Your task to perform on an android device: Search for apple airpods on amazon, select the first entry, add it to the cart, then select checkout. Image 0: 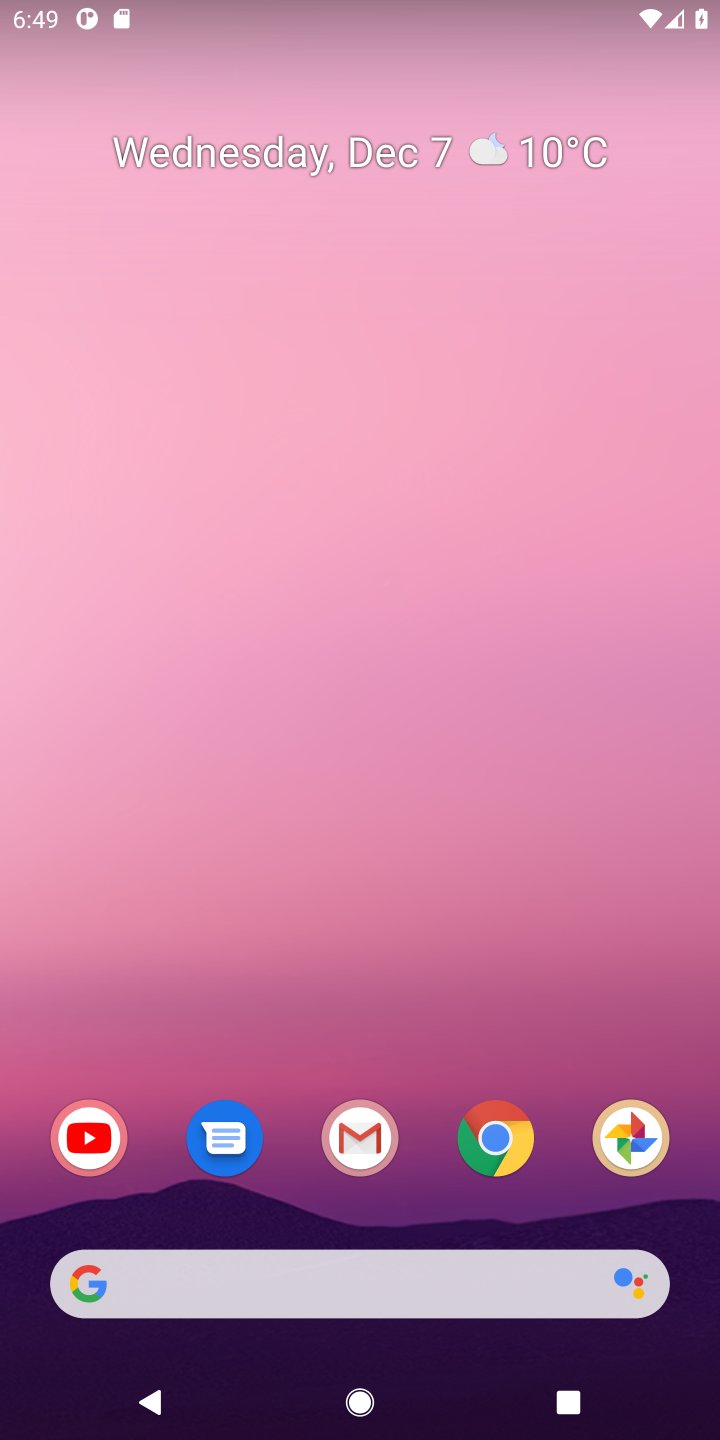
Step 0: press home button
Your task to perform on an android device: Search for apple airpods on amazon, select the first entry, add it to the cart, then select checkout. Image 1: 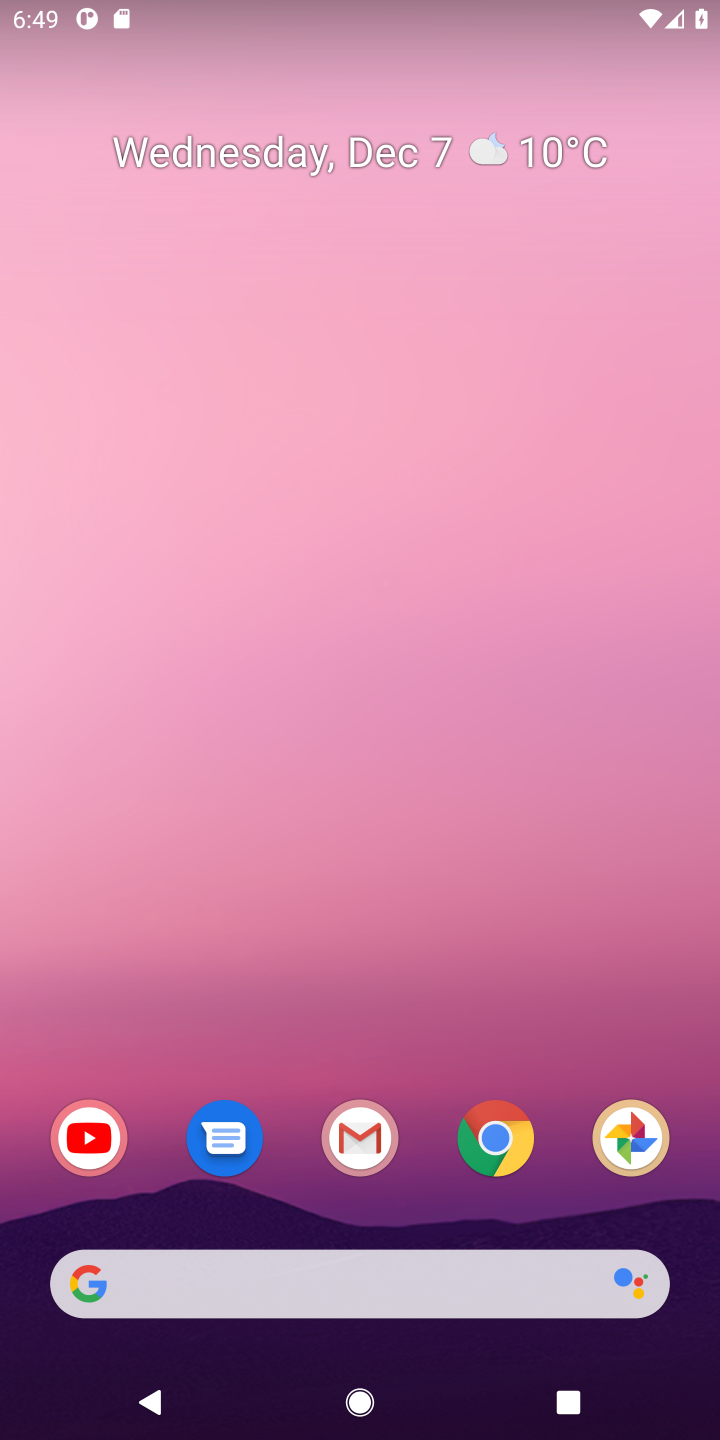
Step 1: click (161, 1285)
Your task to perform on an android device: Search for apple airpods on amazon, select the first entry, add it to the cart, then select checkout. Image 2: 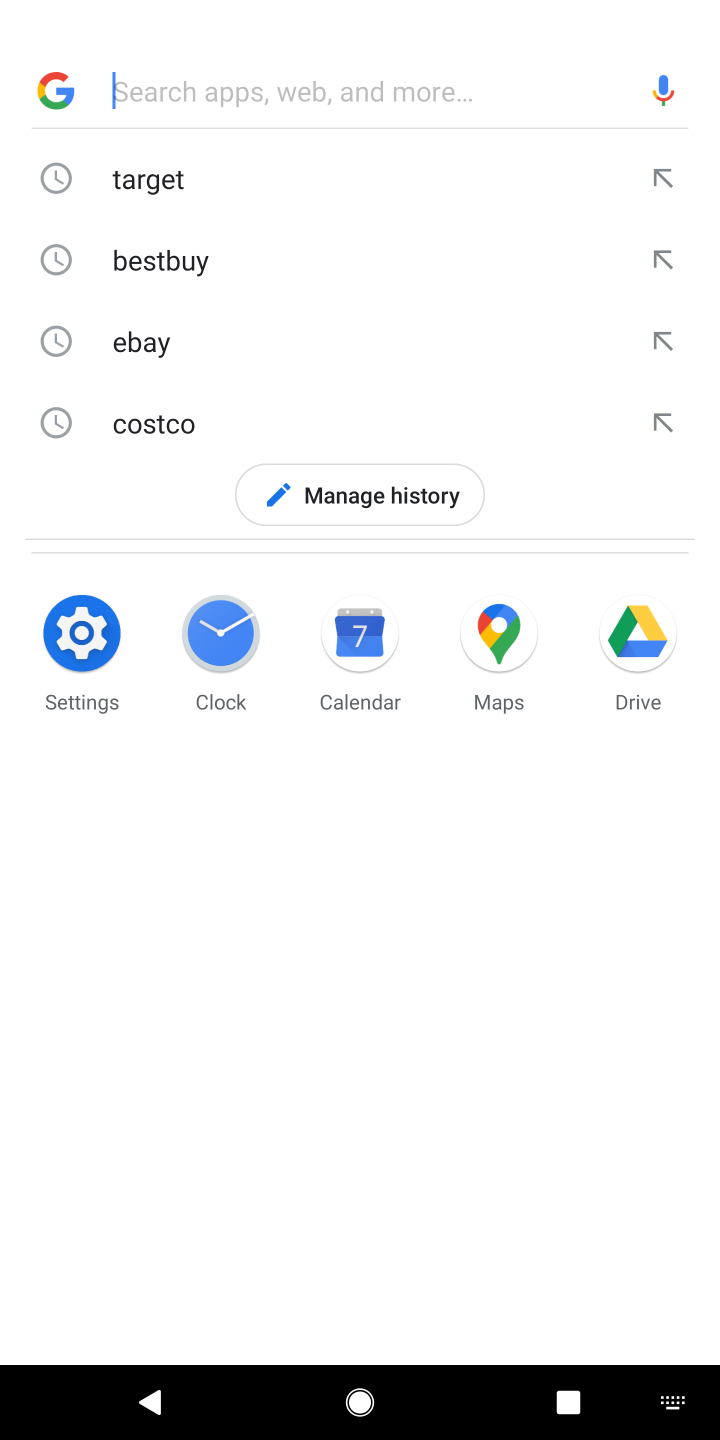
Step 2: type "amazon"
Your task to perform on an android device: Search for apple airpods on amazon, select the first entry, add it to the cart, then select checkout. Image 3: 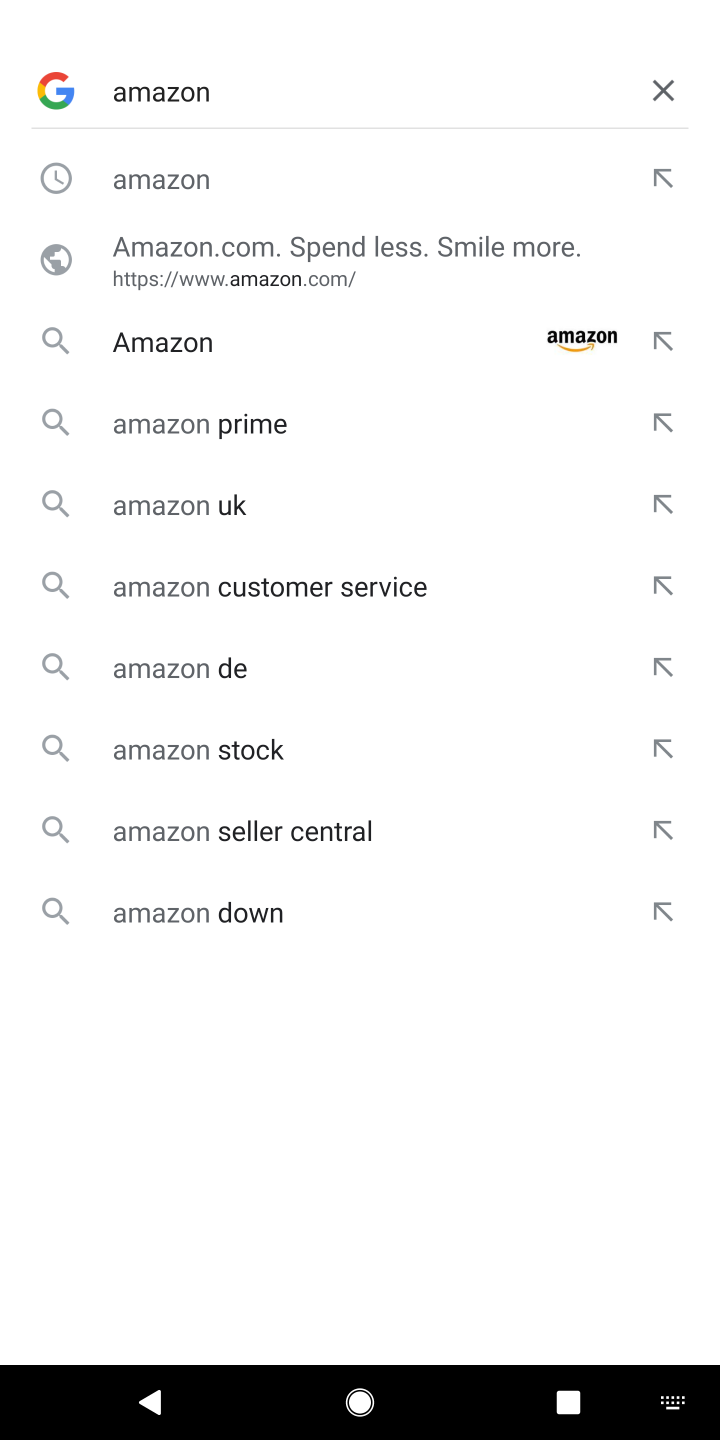
Step 3: press enter
Your task to perform on an android device: Search for apple airpods on amazon, select the first entry, add it to the cart, then select checkout. Image 4: 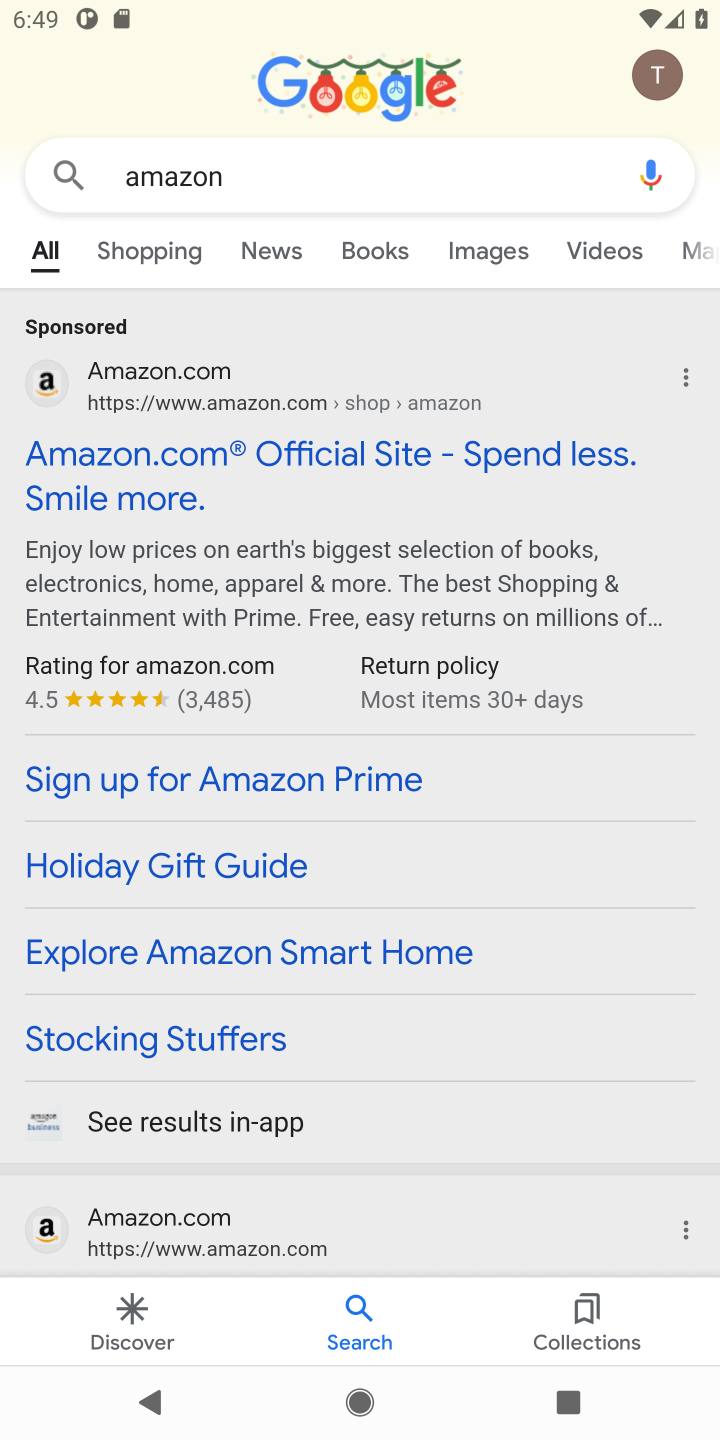
Step 4: click (343, 449)
Your task to perform on an android device: Search for apple airpods on amazon, select the first entry, add it to the cart, then select checkout. Image 5: 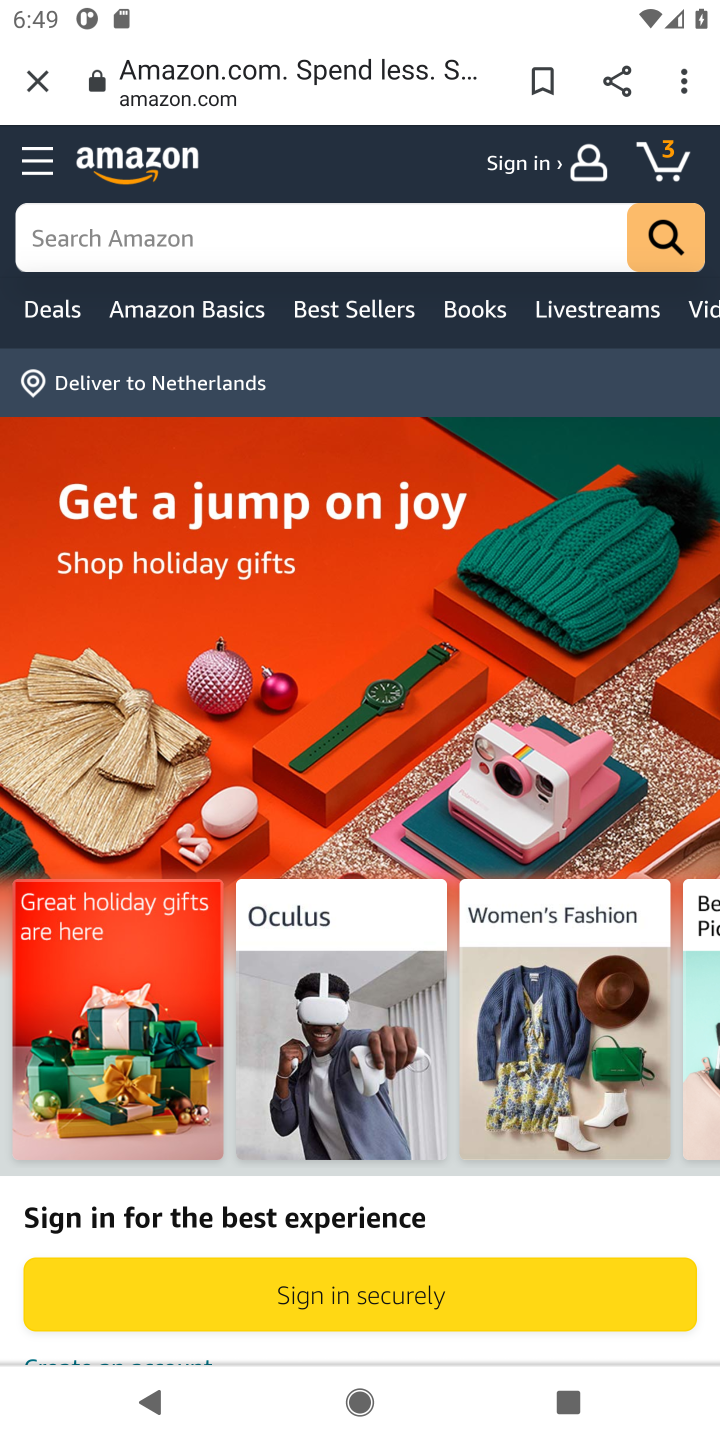
Step 5: click (95, 231)
Your task to perform on an android device: Search for apple airpods on amazon, select the first entry, add it to the cart, then select checkout. Image 6: 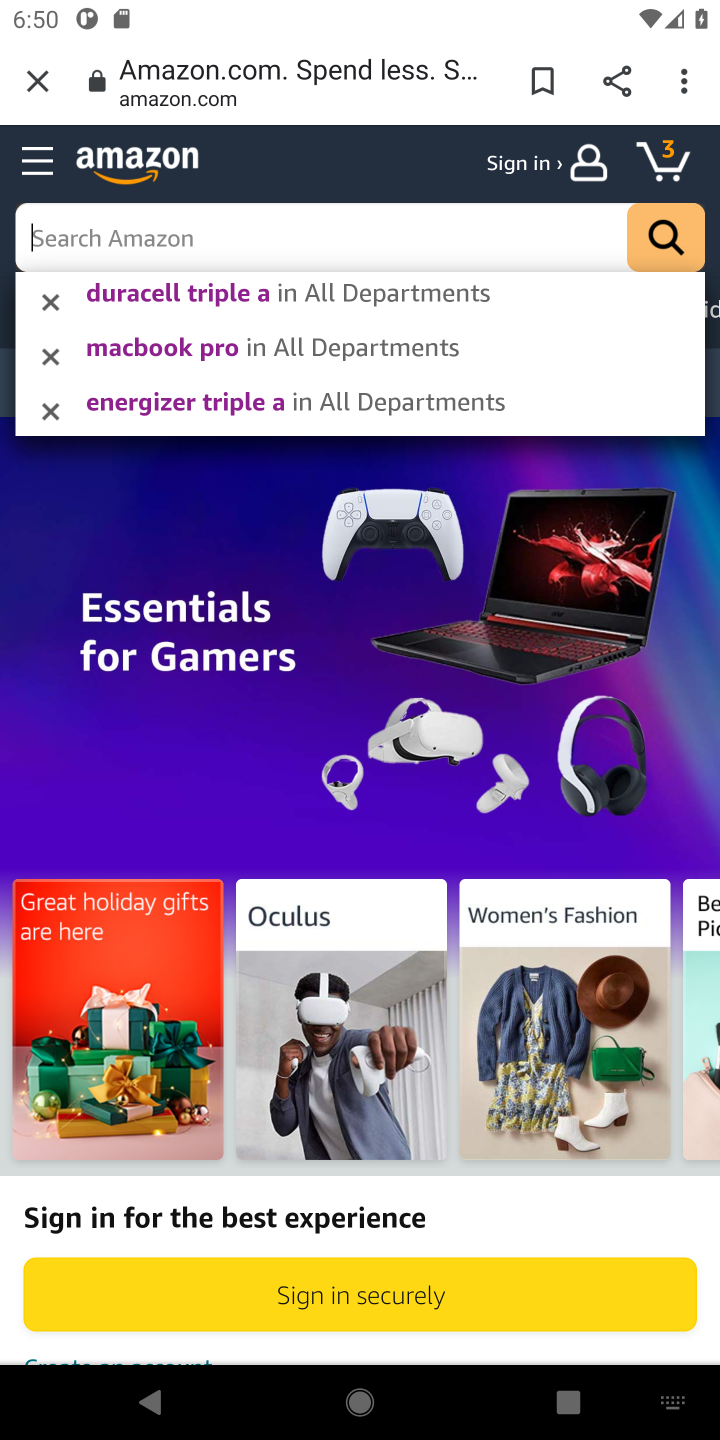
Step 6: type "apple airpods"
Your task to perform on an android device: Search for apple airpods on amazon, select the first entry, add it to the cart, then select checkout. Image 7: 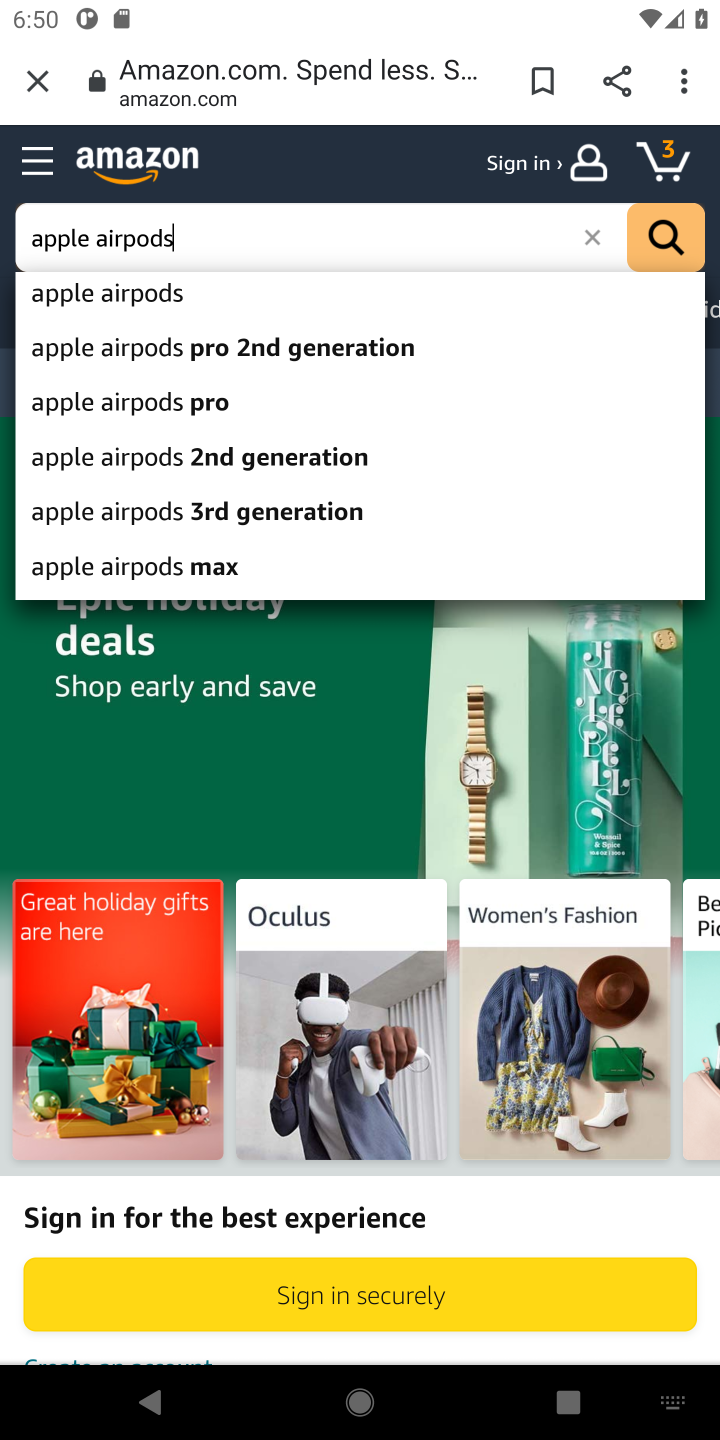
Step 7: click (646, 236)
Your task to perform on an android device: Search for apple airpods on amazon, select the first entry, add it to the cart, then select checkout. Image 8: 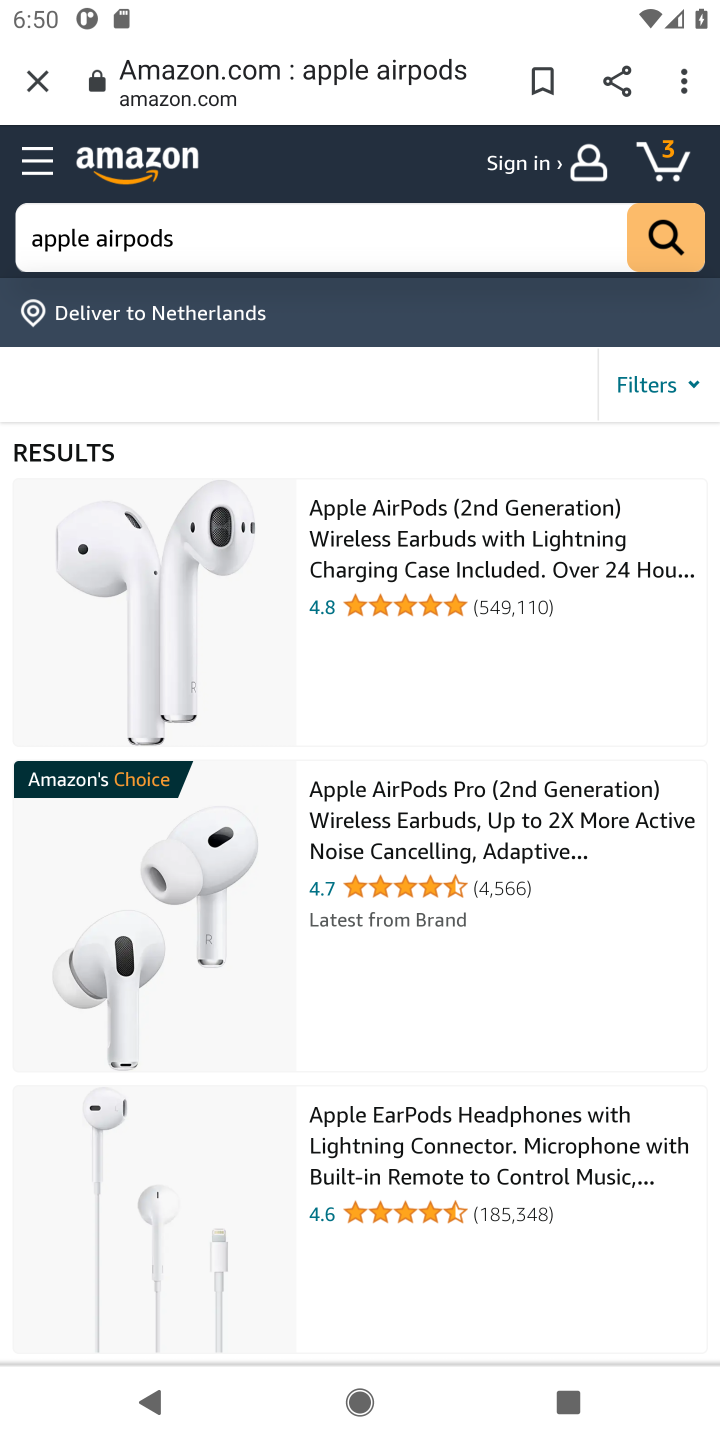
Step 8: click (410, 533)
Your task to perform on an android device: Search for apple airpods on amazon, select the first entry, add it to the cart, then select checkout. Image 9: 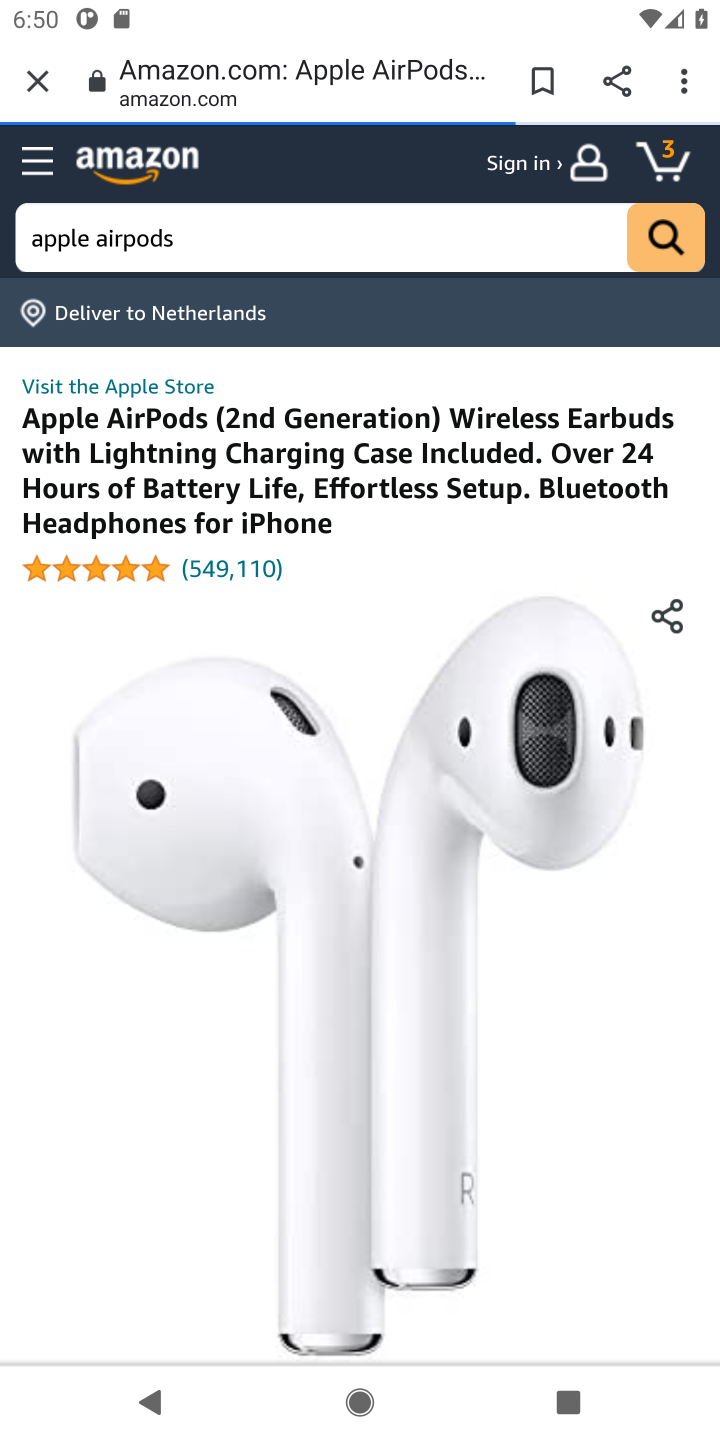
Step 9: task complete